Your task to perform on an android device: open app "Facebook Messenger" (install if not already installed) Image 0: 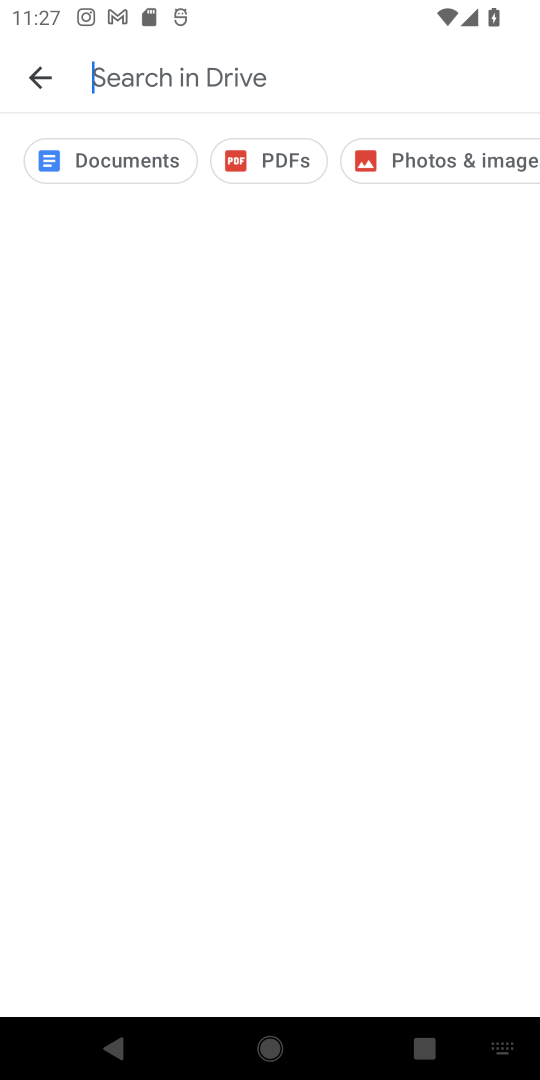
Step 0: press home button
Your task to perform on an android device: open app "Facebook Messenger" (install if not already installed) Image 1: 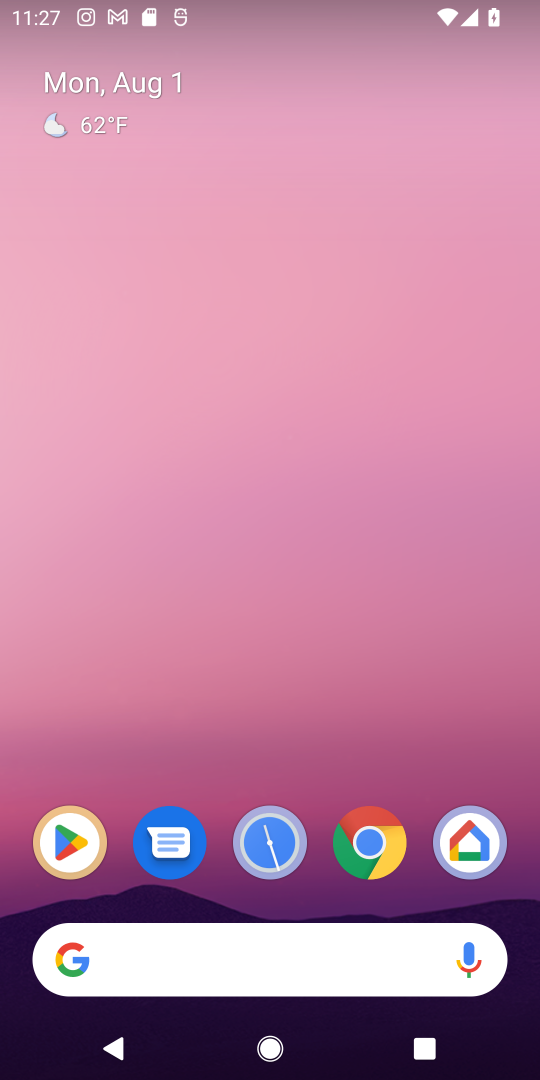
Step 1: click (56, 850)
Your task to perform on an android device: open app "Facebook Messenger" (install if not already installed) Image 2: 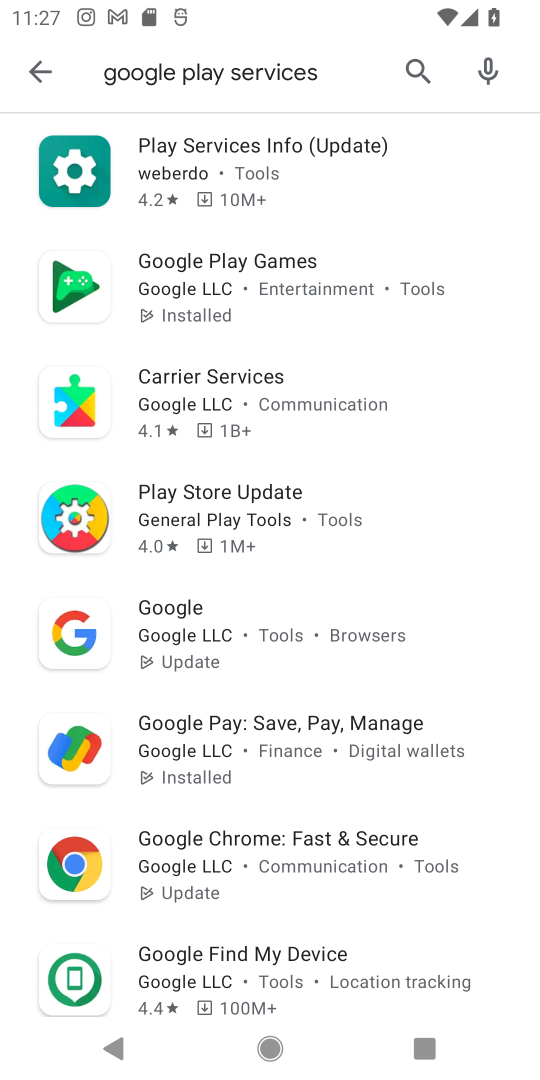
Step 2: click (430, 73)
Your task to perform on an android device: open app "Facebook Messenger" (install if not already installed) Image 3: 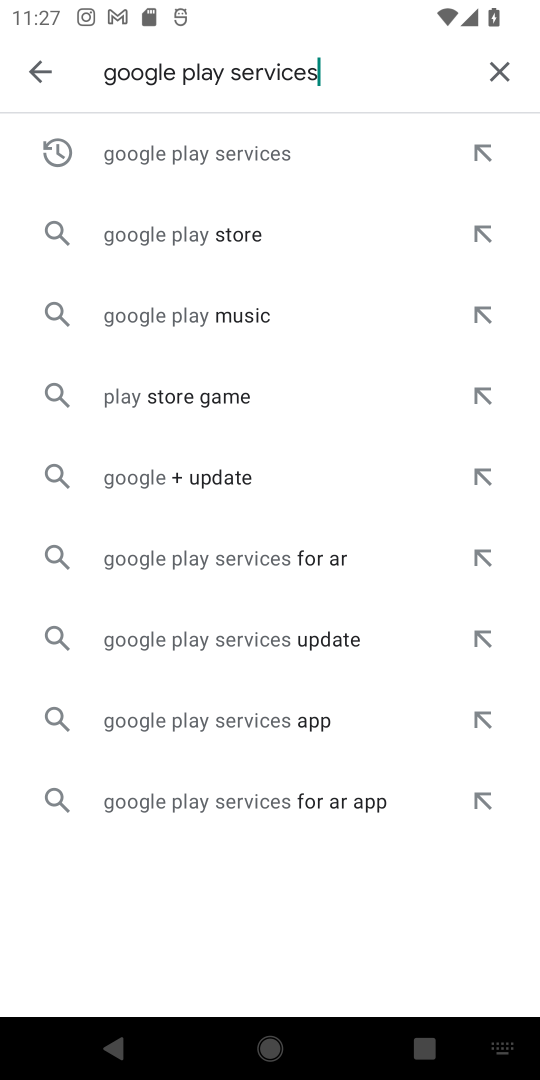
Step 3: click (505, 82)
Your task to perform on an android device: open app "Facebook Messenger" (install if not already installed) Image 4: 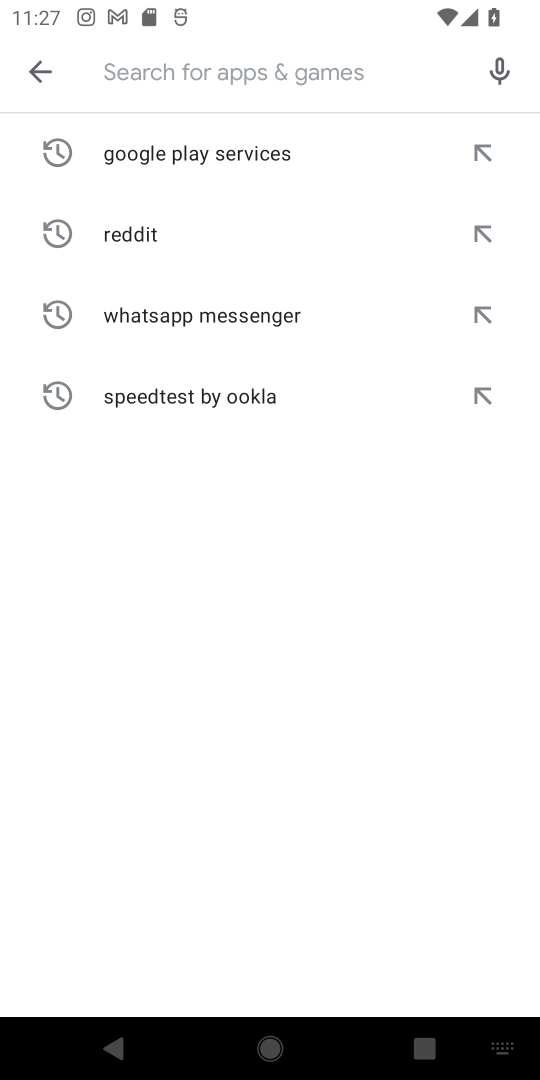
Step 4: click (164, 85)
Your task to perform on an android device: open app "Facebook Messenger" (install if not already installed) Image 5: 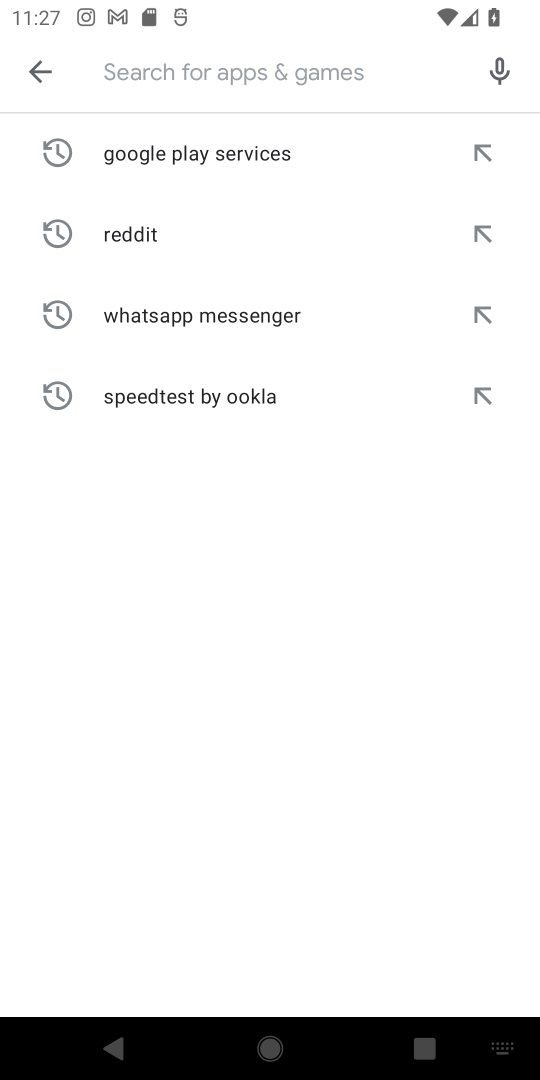
Step 5: type "Facebook Messenger"
Your task to perform on an android device: open app "Facebook Messenger" (install if not already installed) Image 6: 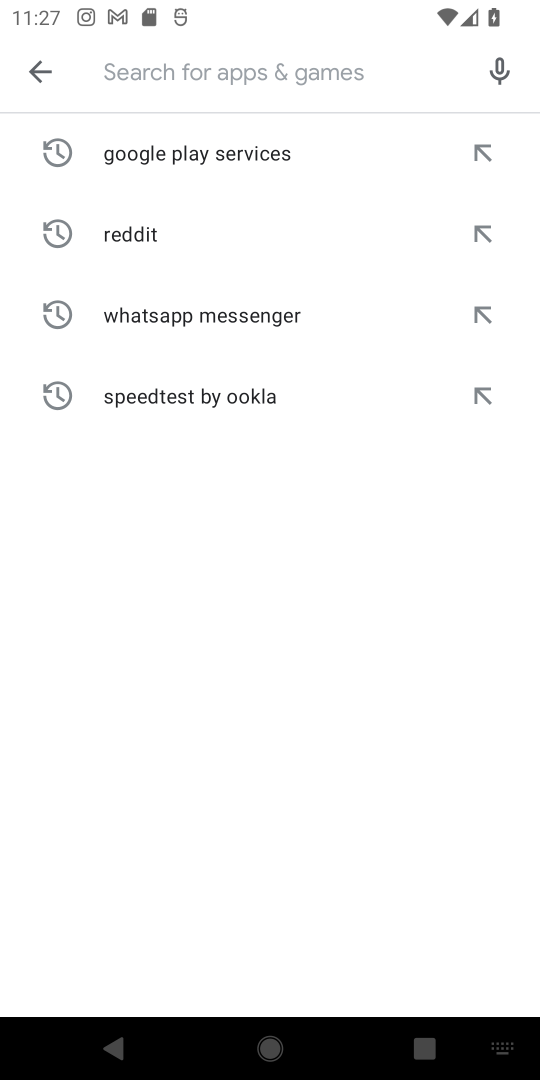
Step 6: click (322, 692)
Your task to perform on an android device: open app "Facebook Messenger" (install if not already installed) Image 7: 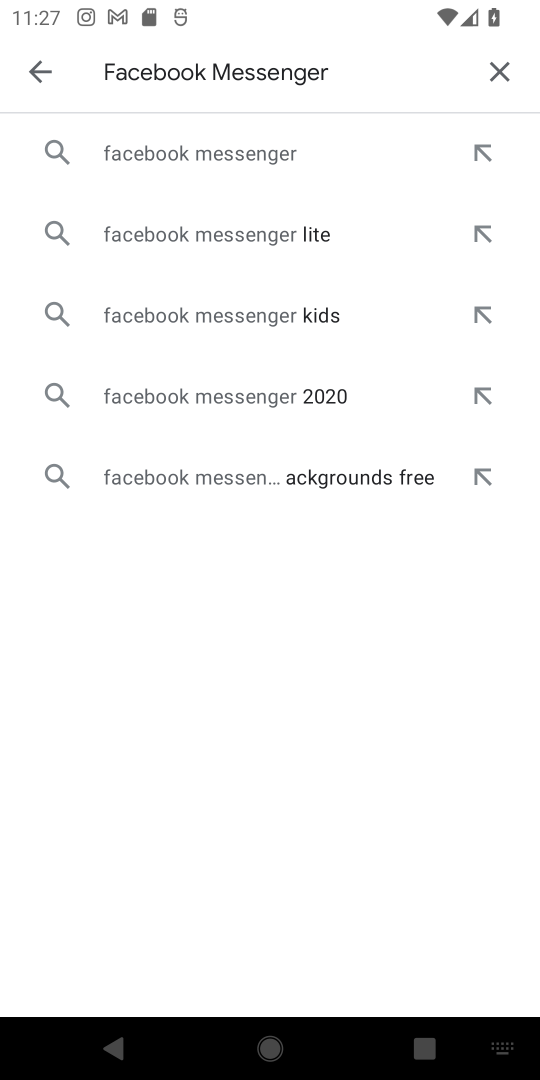
Step 7: click (148, 138)
Your task to perform on an android device: open app "Facebook Messenger" (install if not already installed) Image 8: 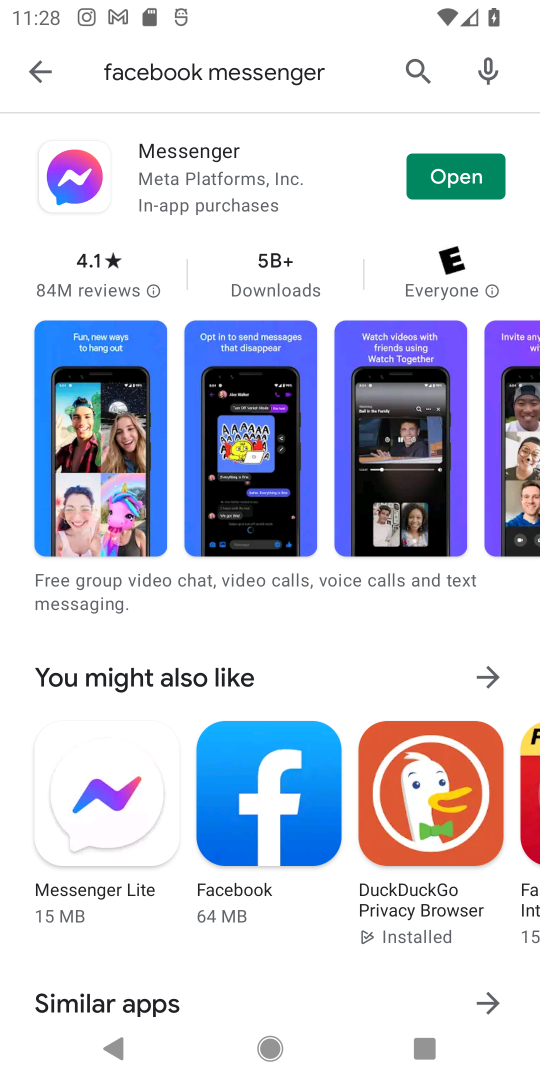
Step 8: click (463, 170)
Your task to perform on an android device: open app "Facebook Messenger" (install if not already installed) Image 9: 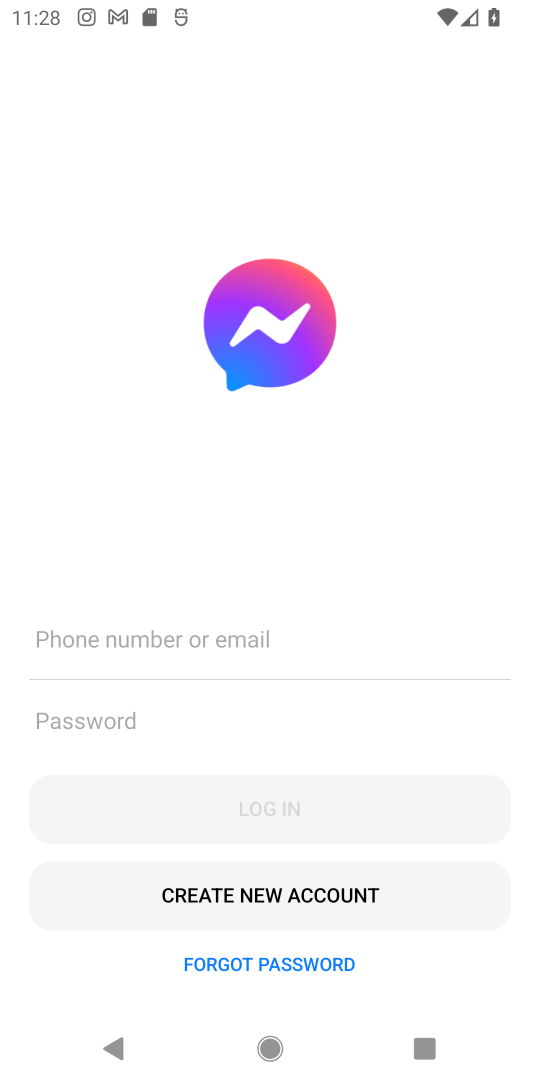
Step 9: task complete